Your task to perform on an android device: manage bookmarks in the chrome app Image 0: 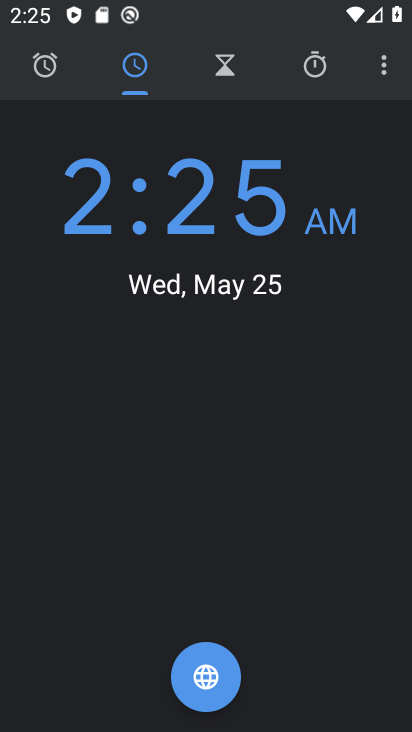
Step 0: press home button
Your task to perform on an android device: manage bookmarks in the chrome app Image 1: 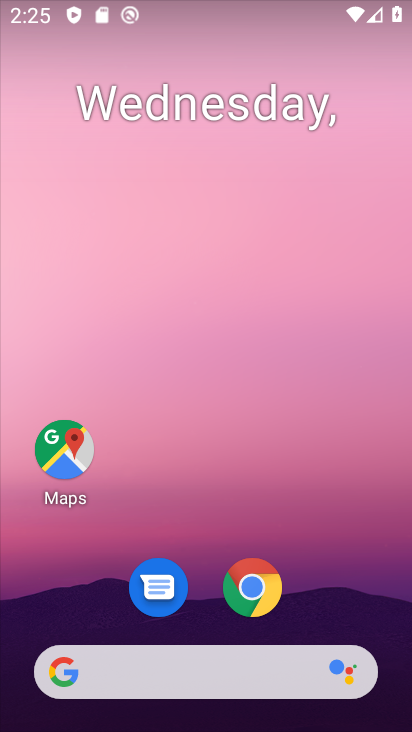
Step 1: drag from (354, 617) to (275, 114)
Your task to perform on an android device: manage bookmarks in the chrome app Image 2: 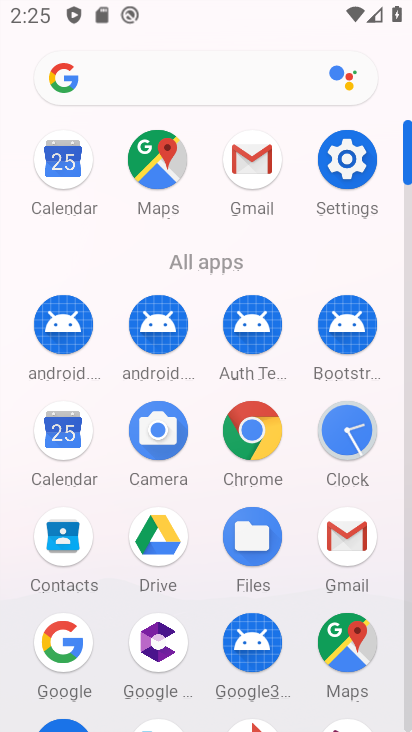
Step 2: click (268, 442)
Your task to perform on an android device: manage bookmarks in the chrome app Image 3: 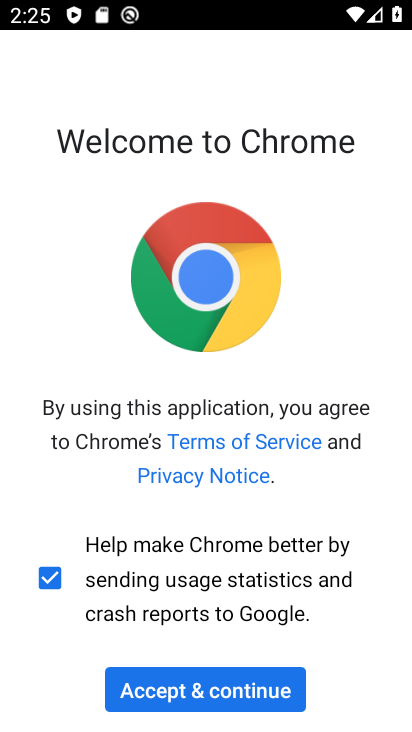
Step 3: click (242, 697)
Your task to perform on an android device: manage bookmarks in the chrome app Image 4: 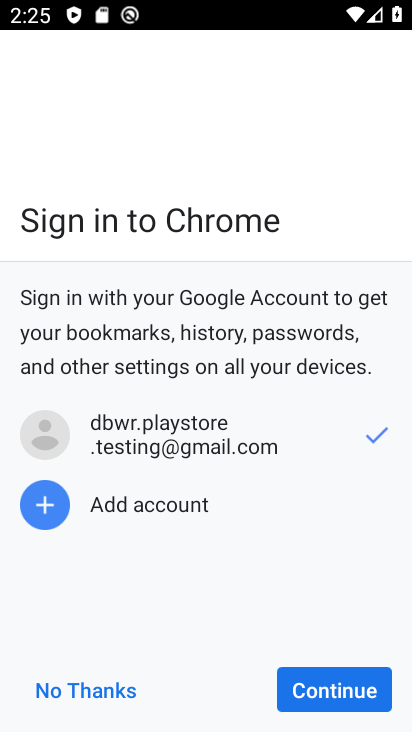
Step 4: click (310, 685)
Your task to perform on an android device: manage bookmarks in the chrome app Image 5: 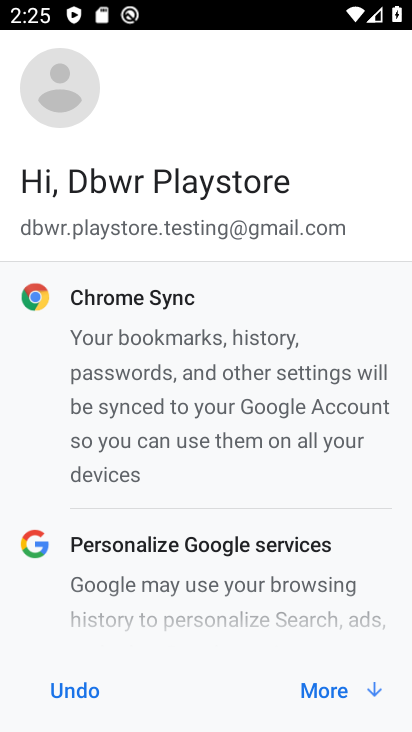
Step 5: click (310, 685)
Your task to perform on an android device: manage bookmarks in the chrome app Image 6: 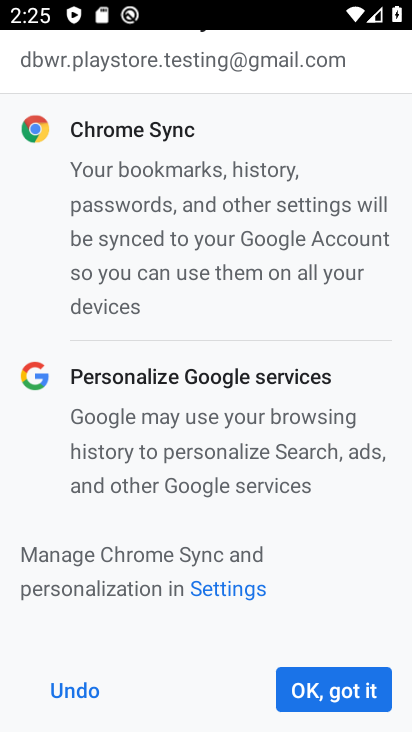
Step 6: click (310, 685)
Your task to perform on an android device: manage bookmarks in the chrome app Image 7: 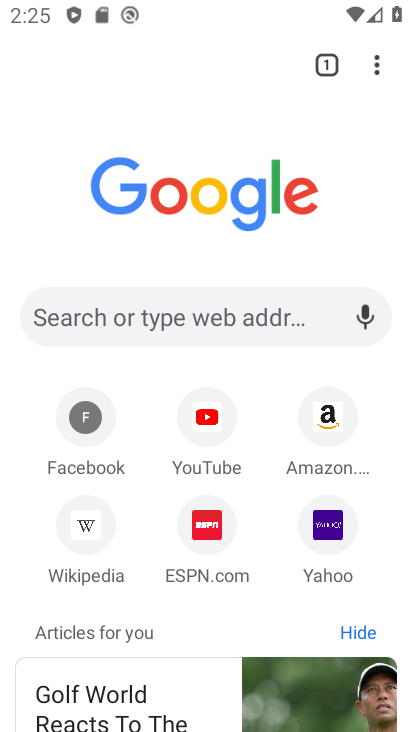
Step 7: click (384, 71)
Your task to perform on an android device: manage bookmarks in the chrome app Image 8: 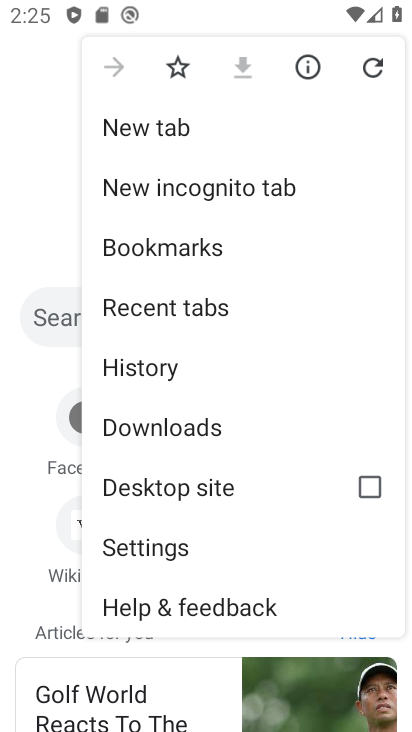
Step 8: click (290, 250)
Your task to perform on an android device: manage bookmarks in the chrome app Image 9: 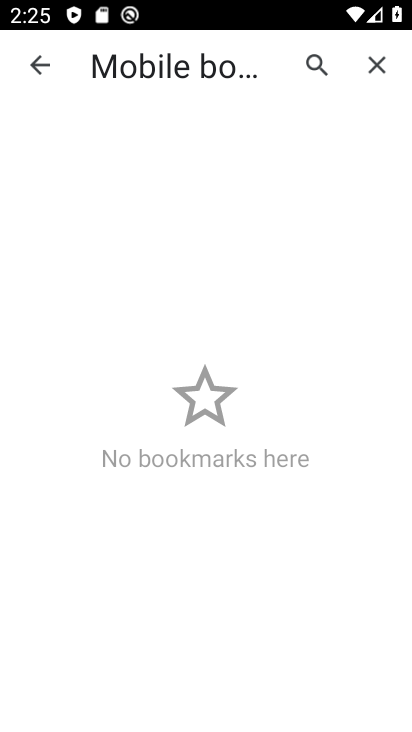
Step 9: task complete